Your task to perform on an android device: turn notification dots on Image 0: 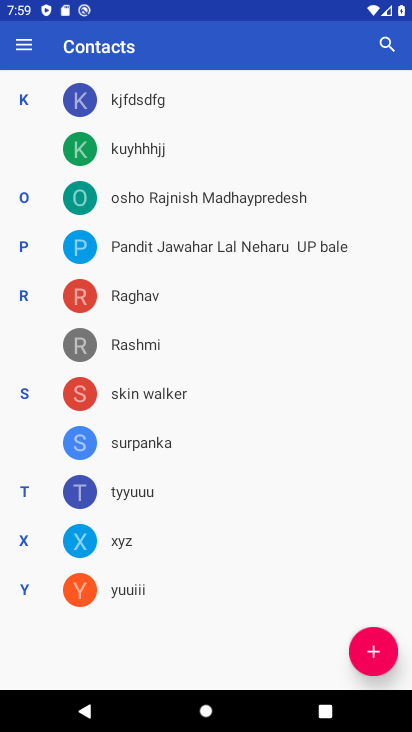
Step 0: press home button
Your task to perform on an android device: turn notification dots on Image 1: 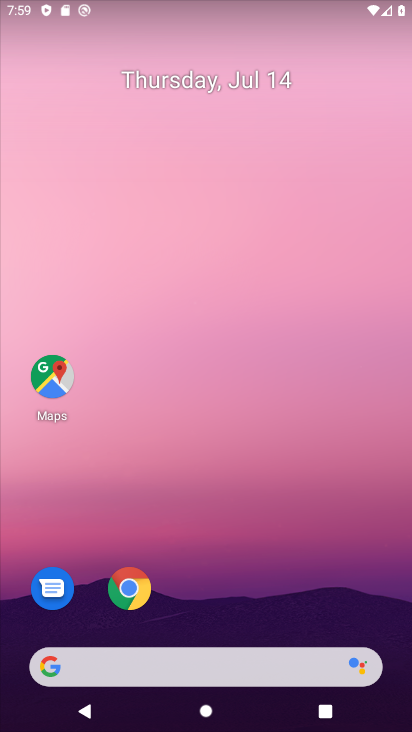
Step 1: drag from (172, 616) to (236, 0)
Your task to perform on an android device: turn notification dots on Image 2: 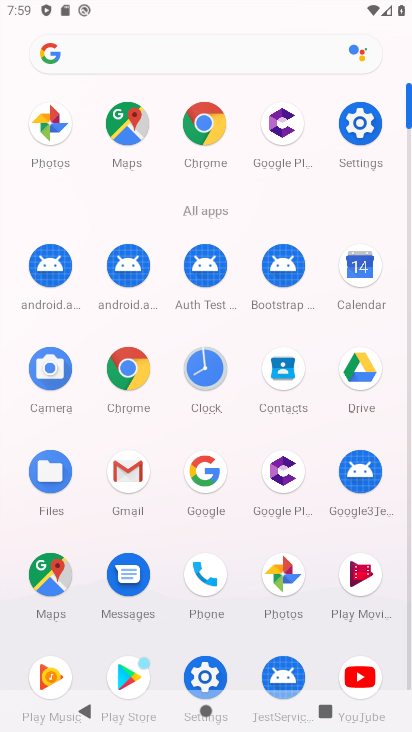
Step 2: click (204, 667)
Your task to perform on an android device: turn notification dots on Image 3: 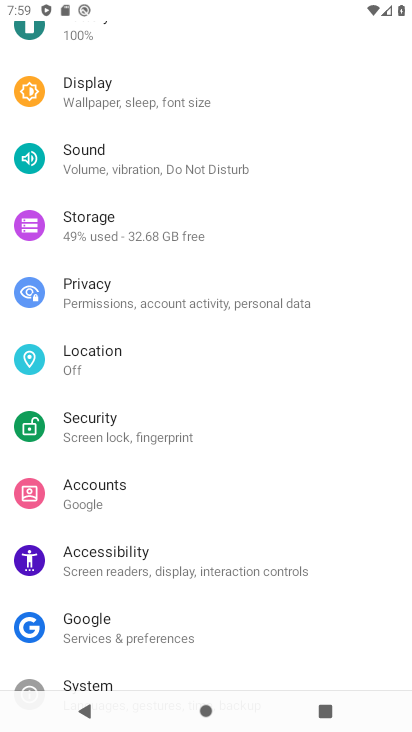
Step 3: drag from (128, 202) to (144, 696)
Your task to perform on an android device: turn notification dots on Image 4: 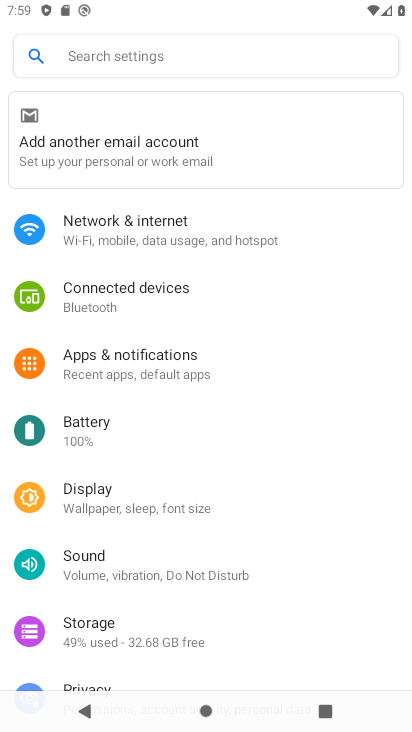
Step 4: click (137, 357)
Your task to perform on an android device: turn notification dots on Image 5: 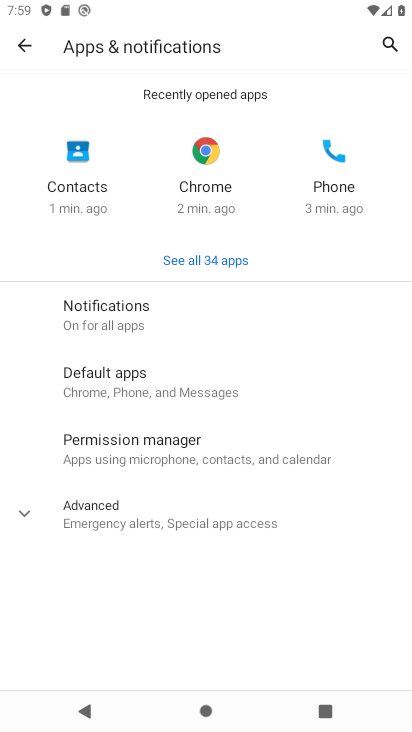
Step 5: click (121, 313)
Your task to perform on an android device: turn notification dots on Image 6: 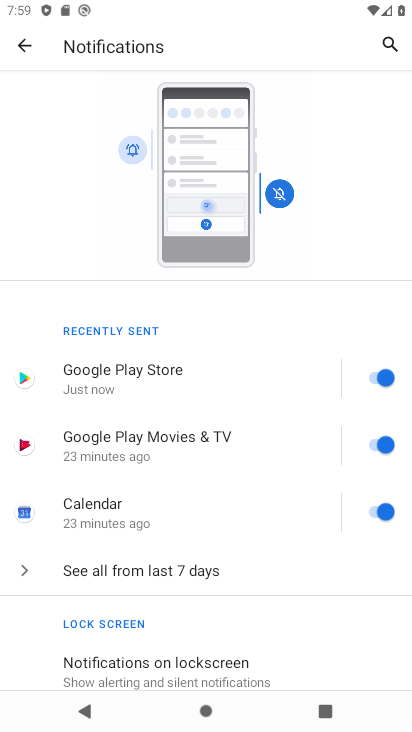
Step 6: drag from (244, 638) to (243, 352)
Your task to perform on an android device: turn notification dots on Image 7: 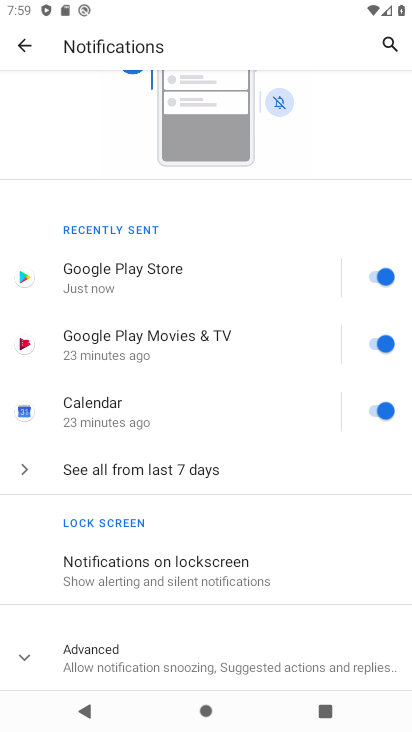
Step 7: click (160, 663)
Your task to perform on an android device: turn notification dots on Image 8: 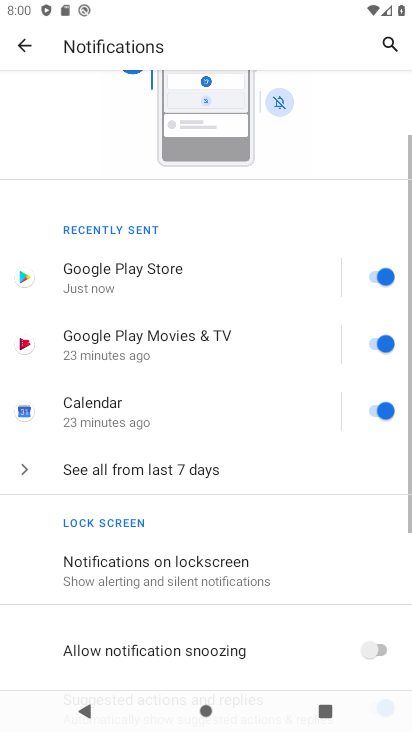
Step 8: task complete